Your task to perform on an android device: open app "Life360: Find Family & Friends" Image 0: 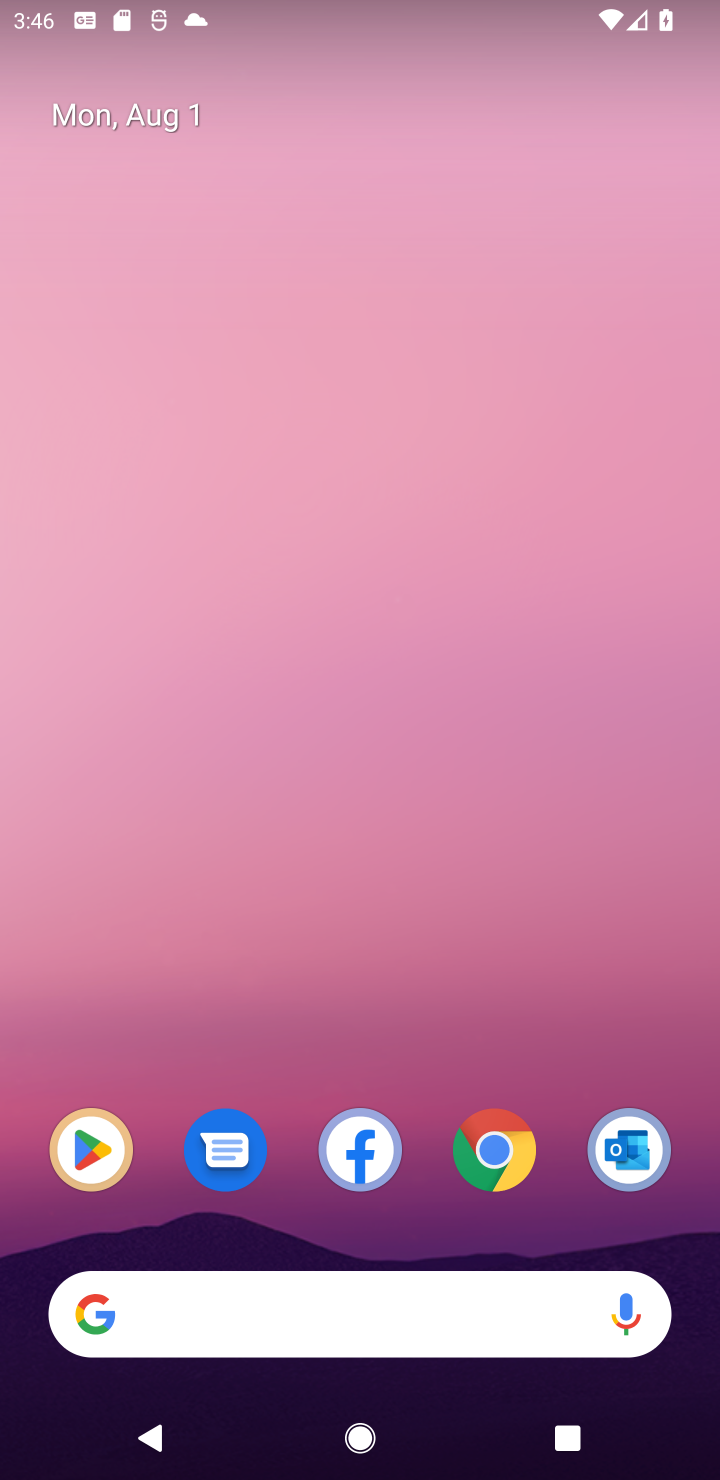
Step 0: drag from (284, 1255) to (414, 411)
Your task to perform on an android device: open app "Life360: Find Family & Friends" Image 1: 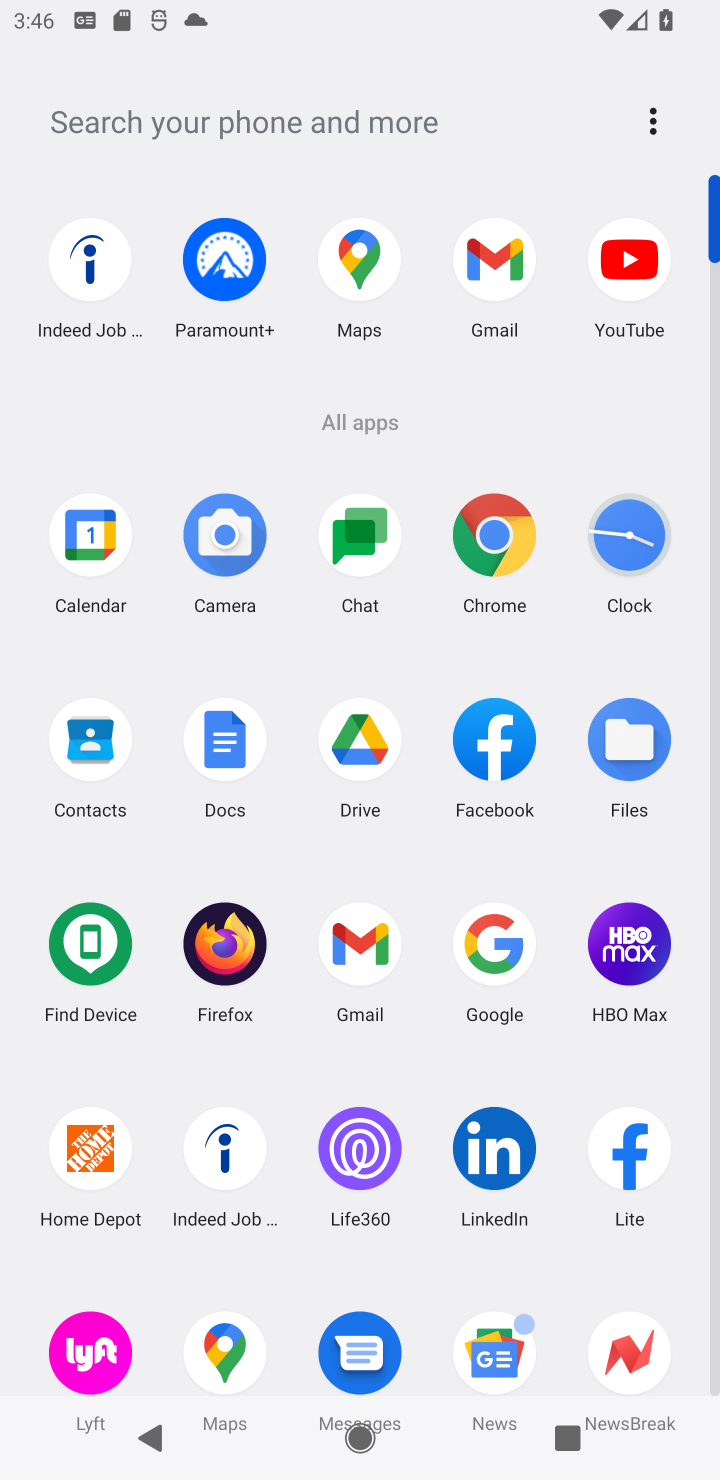
Step 1: click (388, 1190)
Your task to perform on an android device: open app "Life360: Find Family & Friends" Image 2: 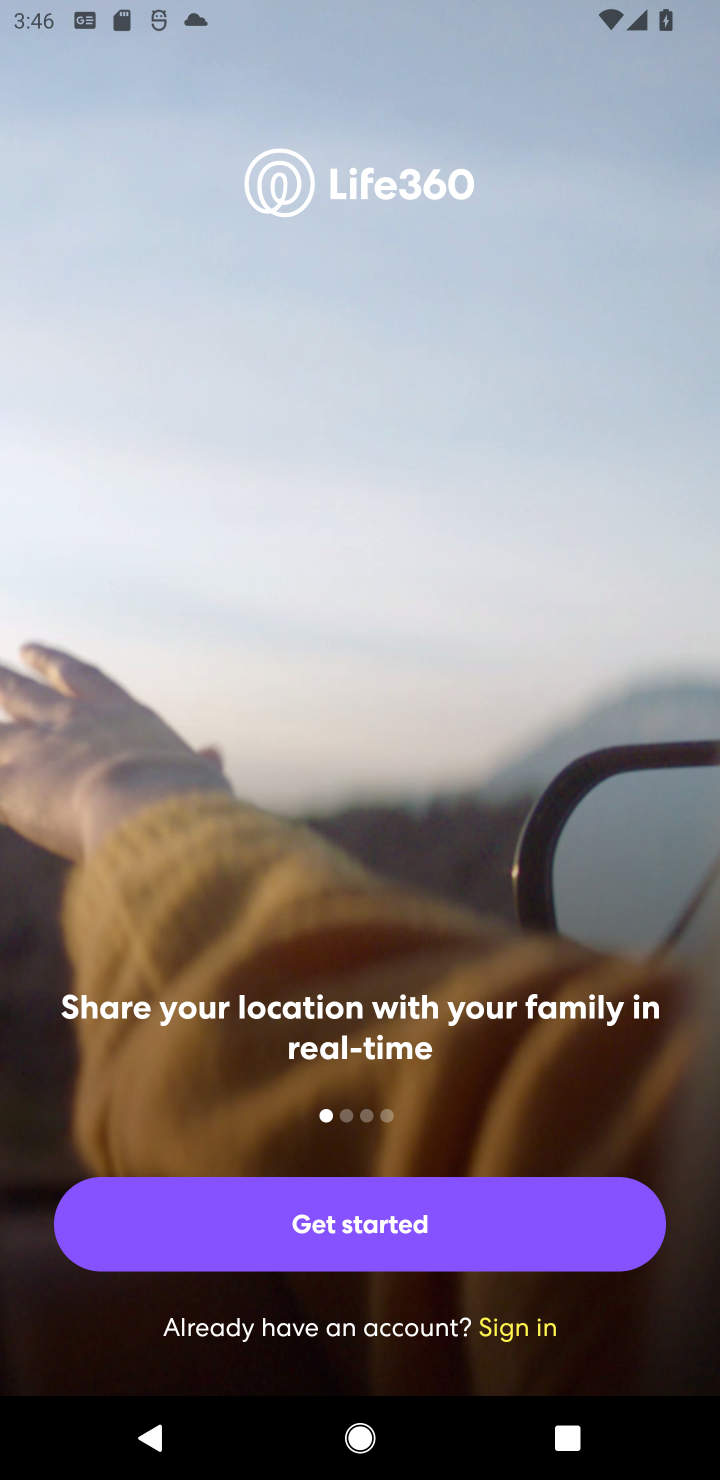
Step 2: task complete